Your task to perform on an android device: add a contact Image 0: 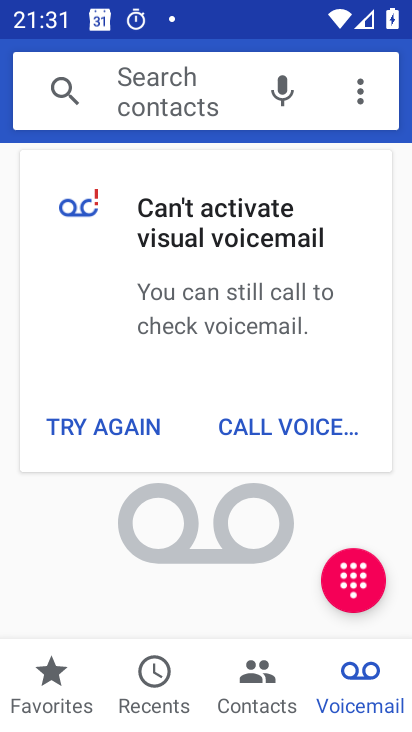
Step 0: press home button
Your task to perform on an android device: add a contact Image 1: 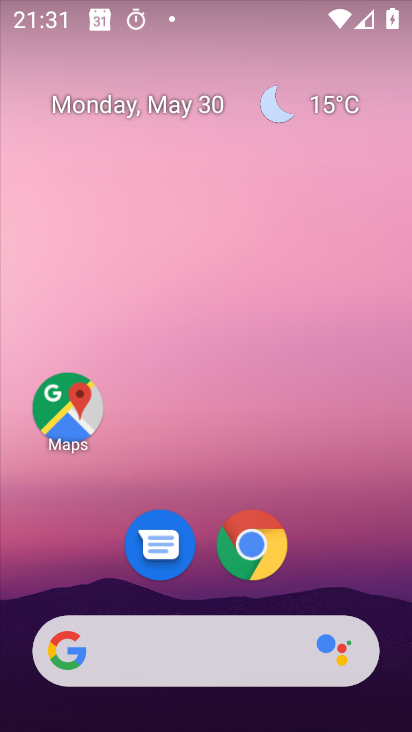
Step 1: drag from (335, 551) to (315, 63)
Your task to perform on an android device: add a contact Image 2: 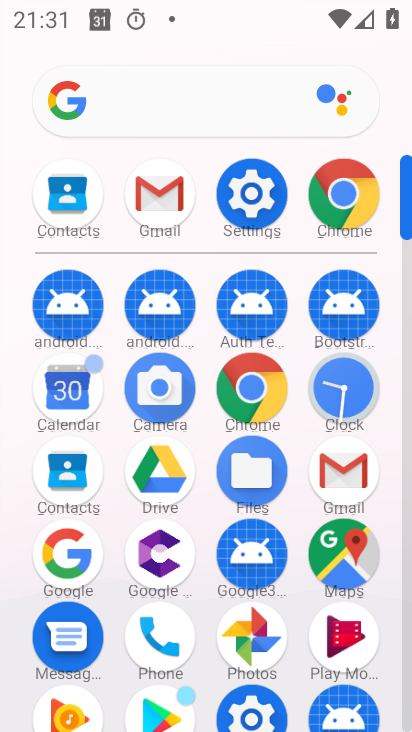
Step 2: click (67, 194)
Your task to perform on an android device: add a contact Image 3: 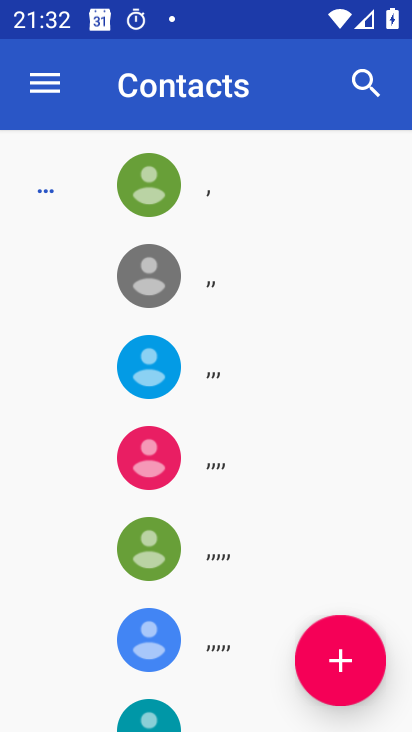
Step 3: click (343, 662)
Your task to perform on an android device: add a contact Image 4: 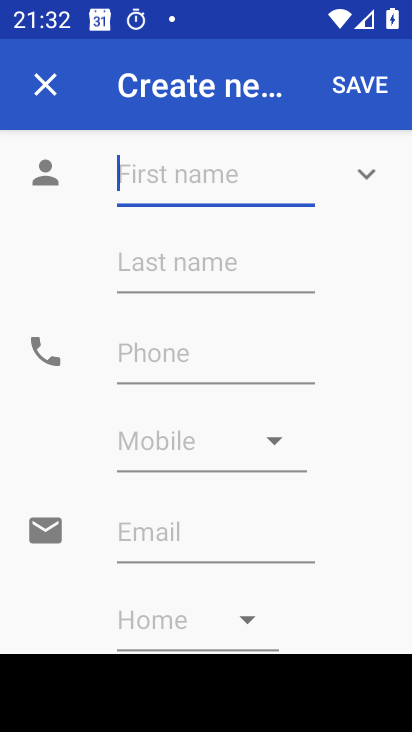
Step 4: type "hhjfhf"
Your task to perform on an android device: add a contact Image 5: 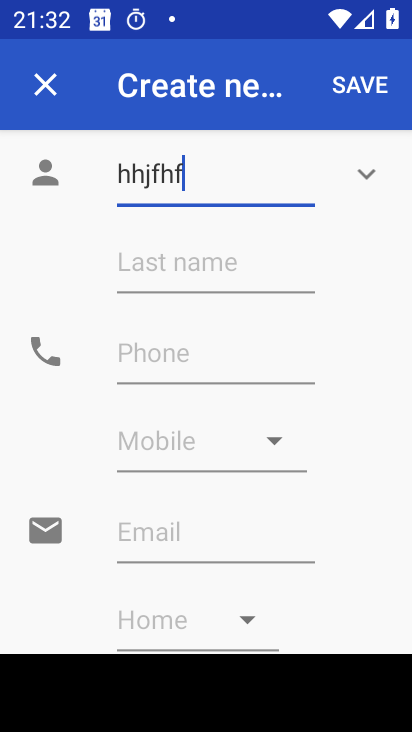
Step 5: click (146, 349)
Your task to perform on an android device: add a contact Image 6: 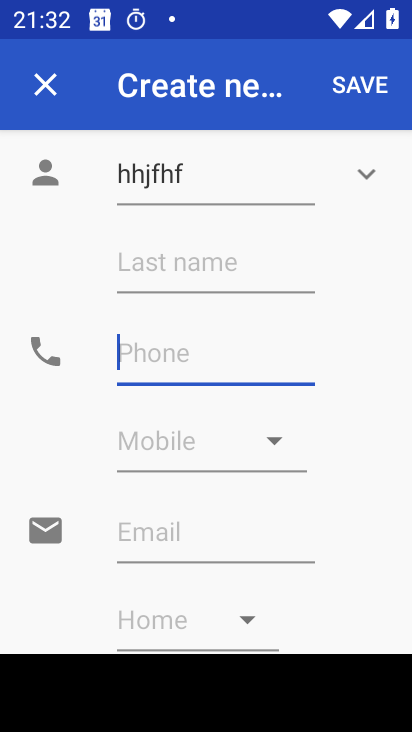
Step 6: type "564764675"
Your task to perform on an android device: add a contact Image 7: 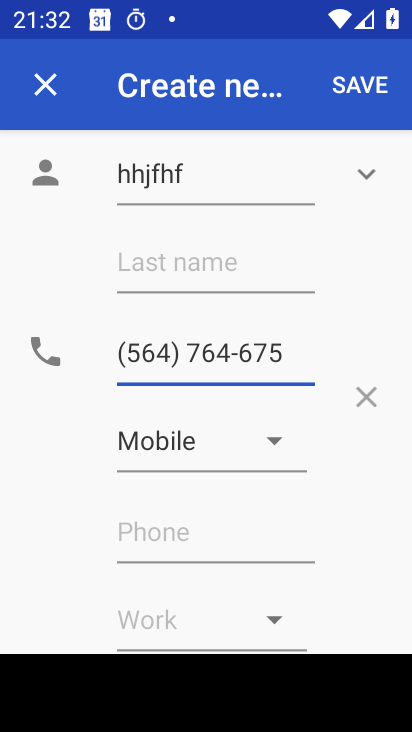
Step 7: click (380, 88)
Your task to perform on an android device: add a contact Image 8: 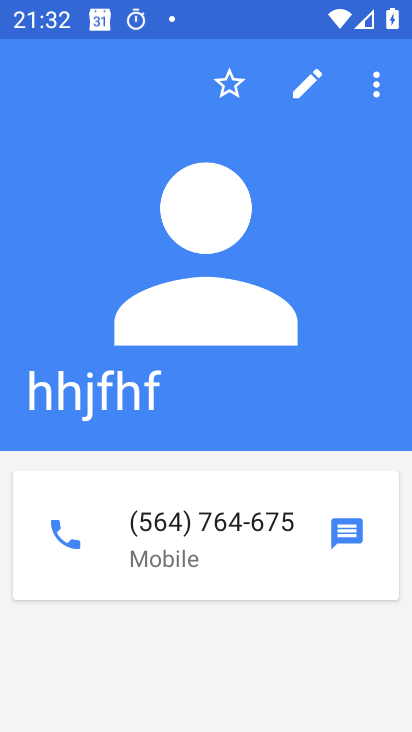
Step 8: task complete